Your task to perform on an android device: open the mobile data screen to see how much data has been used Image 0: 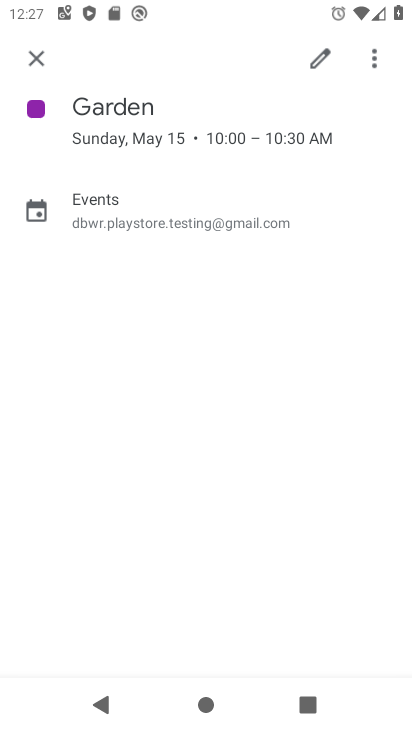
Step 0: press home button
Your task to perform on an android device: open the mobile data screen to see how much data has been used Image 1: 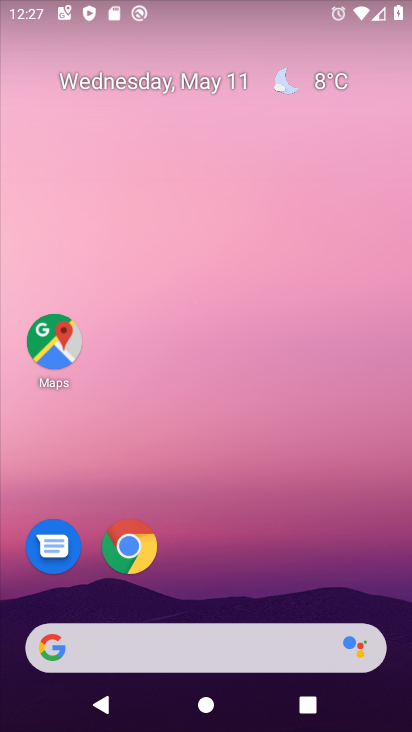
Step 1: drag from (177, 651) to (309, 193)
Your task to perform on an android device: open the mobile data screen to see how much data has been used Image 2: 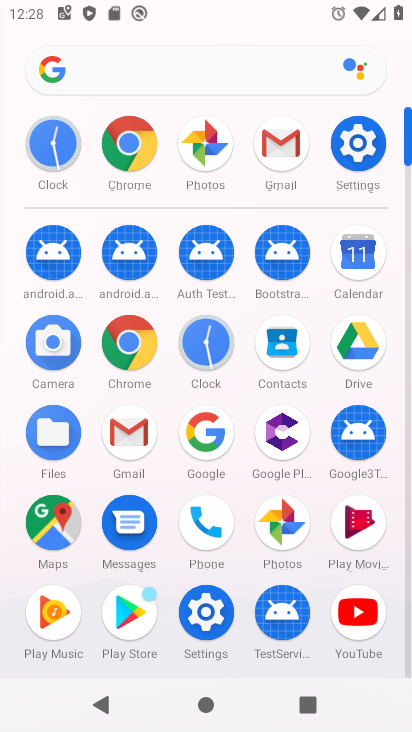
Step 2: click (344, 159)
Your task to perform on an android device: open the mobile data screen to see how much data has been used Image 3: 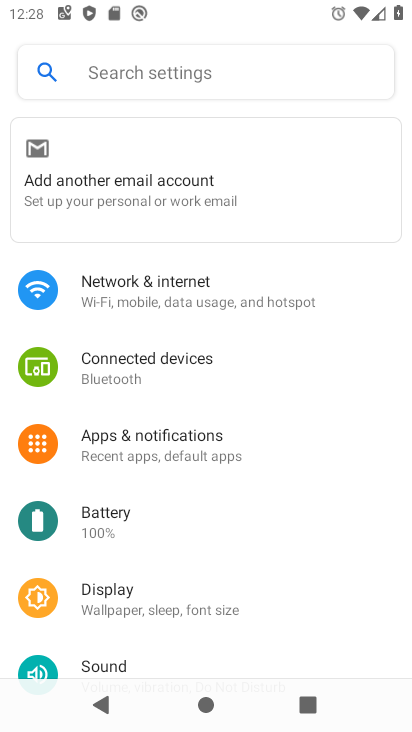
Step 3: click (199, 291)
Your task to perform on an android device: open the mobile data screen to see how much data has been used Image 4: 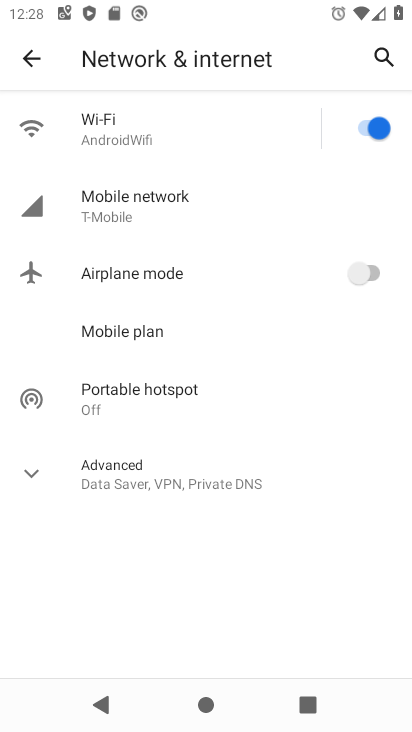
Step 4: click (167, 205)
Your task to perform on an android device: open the mobile data screen to see how much data has been used Image 5: 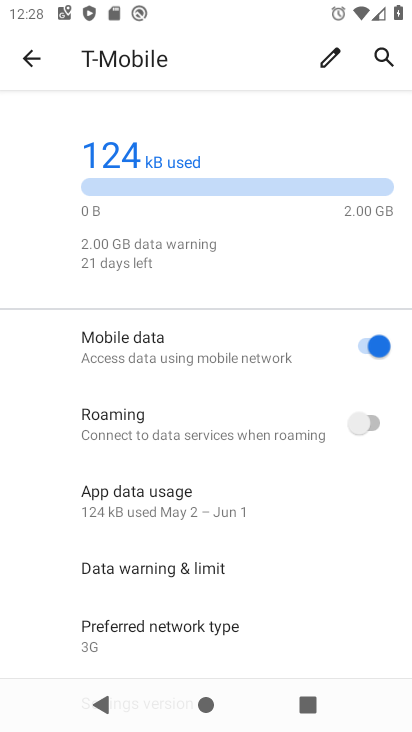
Step 5: task complete